Your task to perform on an android device: turn on priority inbox in the gmail app Image 0: 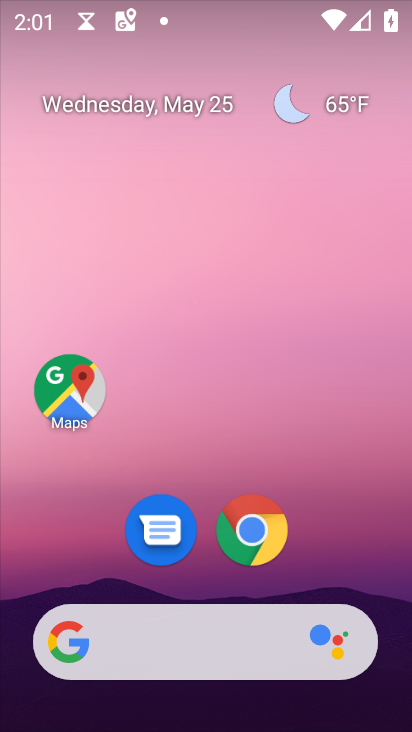
Step 0: drag from (312, 577) to (328, 263)
Your task to perform on an android device: turn on priority inbox in the gmail app Image 1: 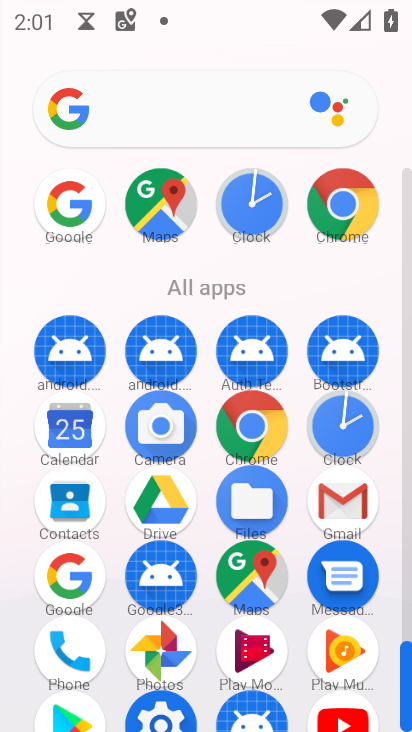
Step 1: click (341, 503)
Your task to perform on an android device: turn on priority inbox in the gmail app Image 2: 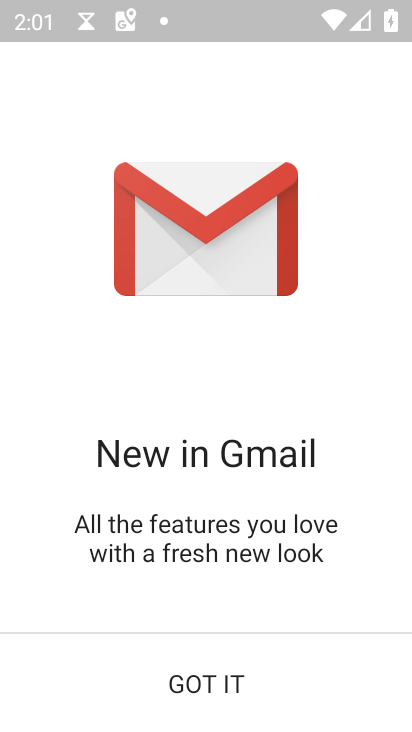
Step 2: click (203, 704)
Your task to perform on an android device: turn on priority inbox in the gmail app Image 3: 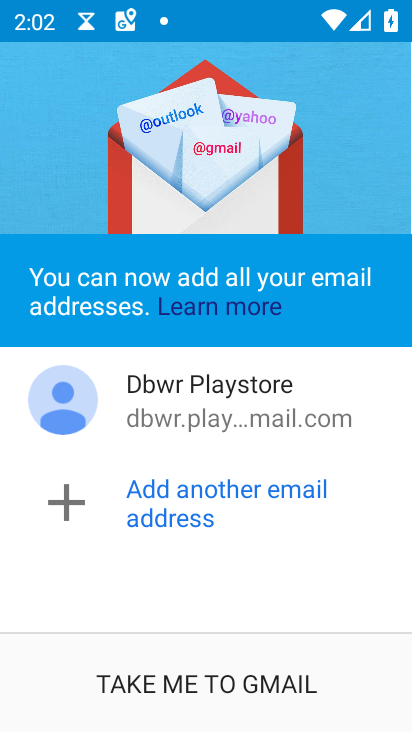
Step 3: click (202, 687)
Your task to perform on an android device: turn on priority inbox in the gmail app Image 4: 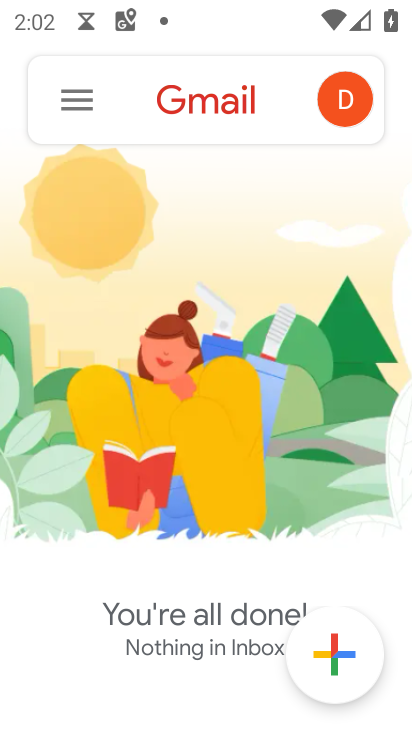
Step 4: click (71, 101)
Your task to perform on an android device: turn on priority inbox in the gmail app Image 5: 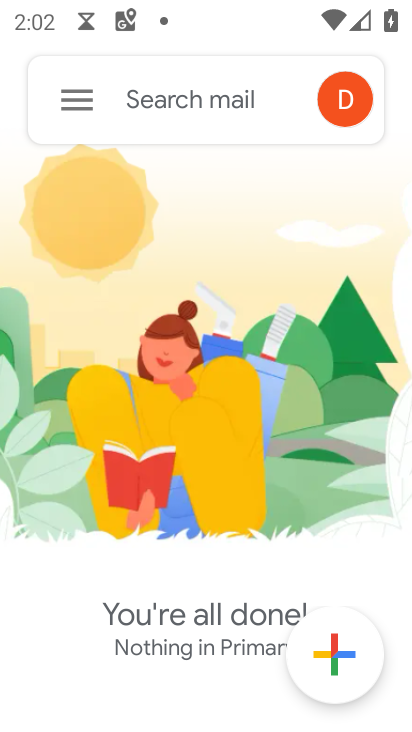
Step 5: click (82, 90)
Your task to perform on an android device: turn on priority inbox in the gmail app Image 6: 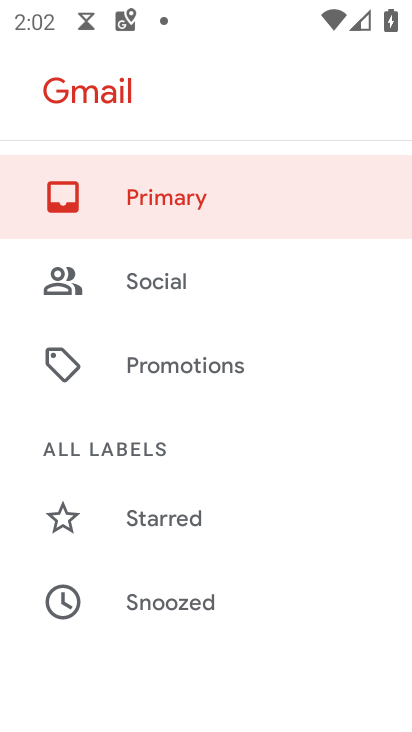
Step 6: drag from (205, 402) to (205, 285)
Your task to perform on an android device: turn on priority inbox in the gmail app Image 7: 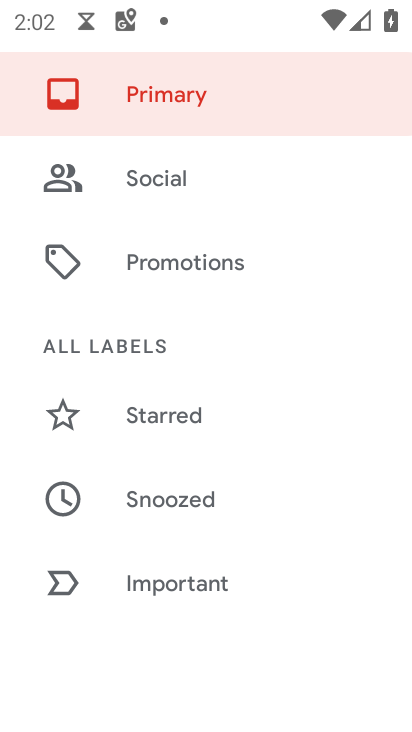
Step 7: drag from (226, 615) to (248, 223)
Your task to perform on an android device: turn on priority inbox in the gmail app Image 8: 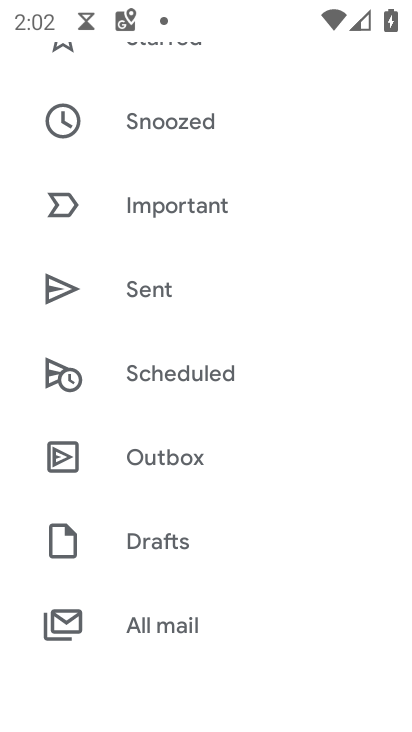
Step 8: drag from (218, 592) to (241, 189)
Your task to perform on an android device: turn on priority inbox in the gmail app Image 9: 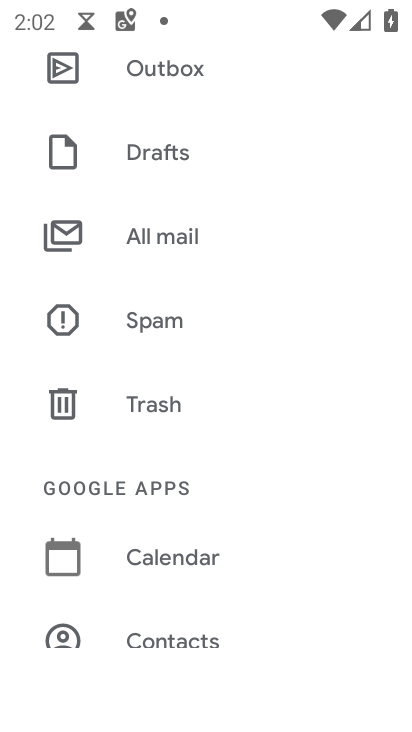
Step 9: drag from (248, 385) to (260, 291)
Your task to perform on an android device: turn on priority inbox in the gmail app Image 10: 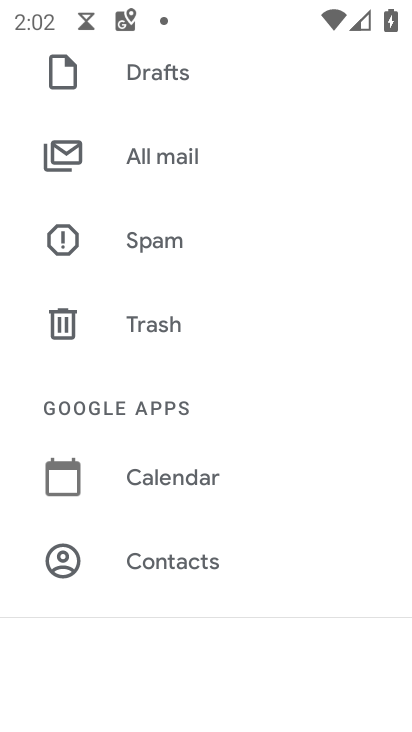
Step 10: drag from (253, 469) to (294, 149)
Your task to perform on an android device: turn on priority inbox in the gmail app Image 11: 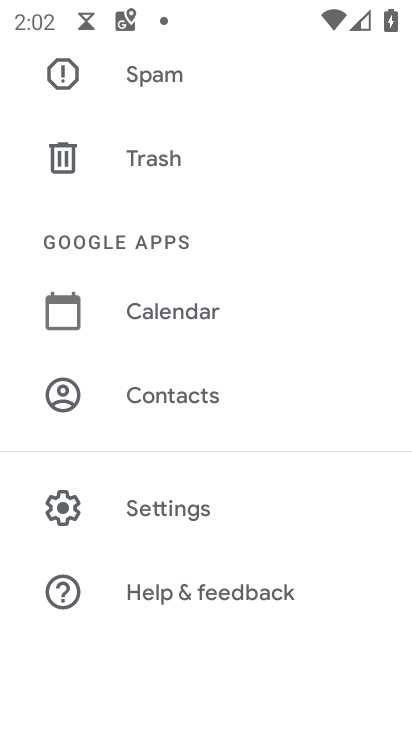
Step 11: click (191, 524)
Your task to perform on an android device: turn on priority inbox in the gmail app Image 12: 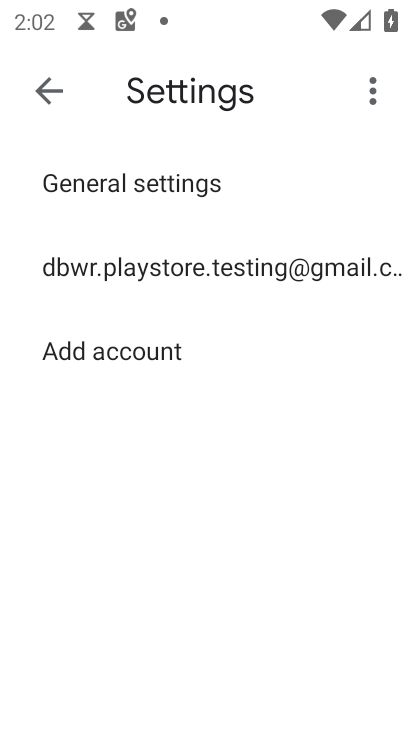
Step 12: click (104, 260)
Your task to perform on an android device: turn on priority inbox in the gmail app Image 13: 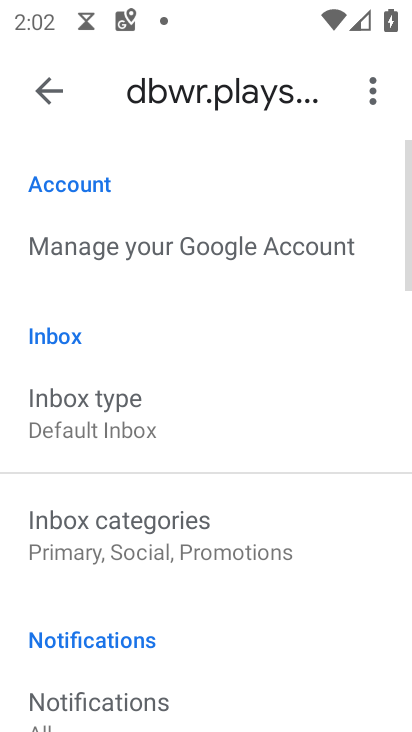
Step 13: click (135, 425)
Your task to perform on an android device: turn on priority inbox in the gmail app Image 14: 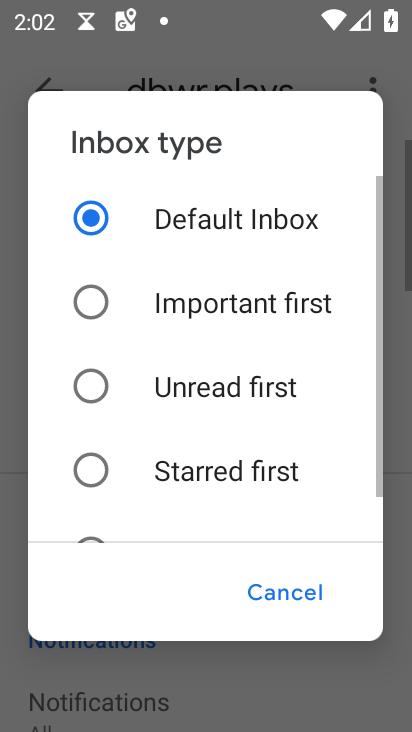
Step 14: drag from (178, 471) to (196, 215)
Your task to perform on an android device: turn on priority inbox in the gmail app Image 15: 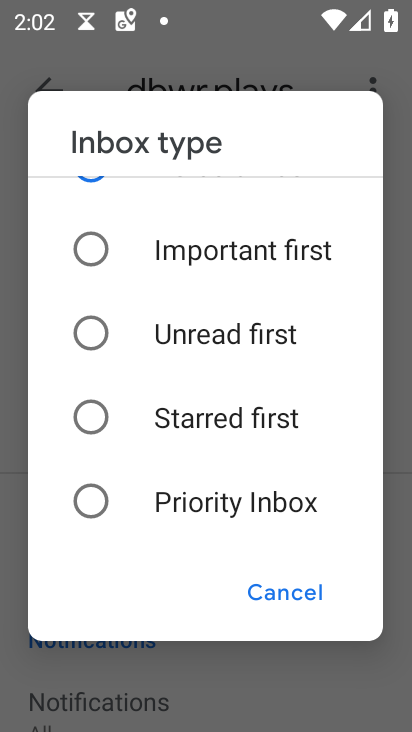
Step 15: click (189, 495)
Your task to perform on an android device: turn on priority inbox in the gmail app Image 16: 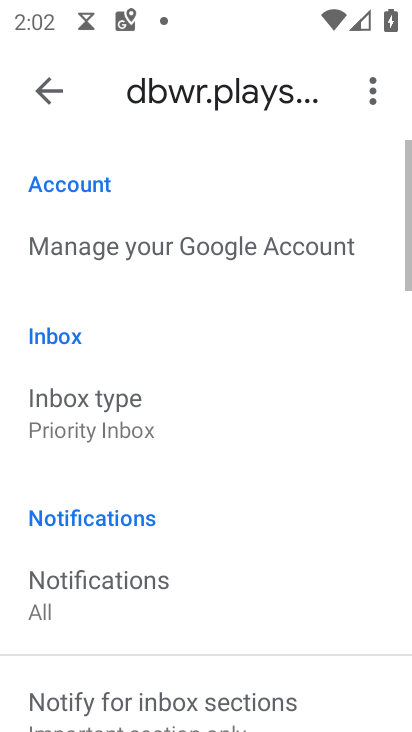
Step 16: task complete